Your task to perform on an android device: Open my contact list Image 0: 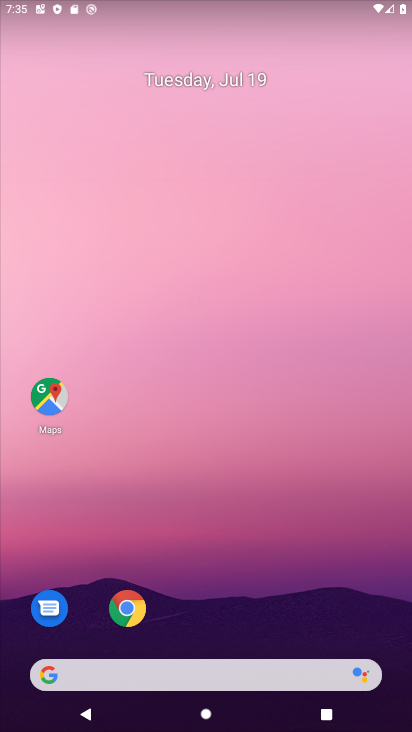
Step 0: drag from (133, 677) to (304, 88)
Your task to perform on an android device: Open my contact list Image 1: 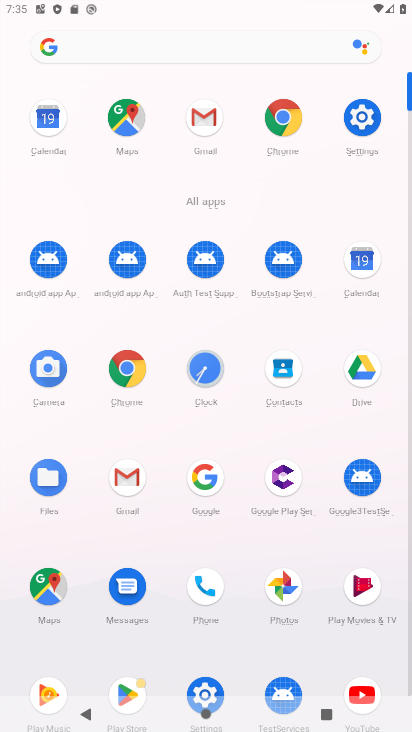
Step 1: click (284, 373)
Your task to perform on an android device: Open my contact list Image 2: 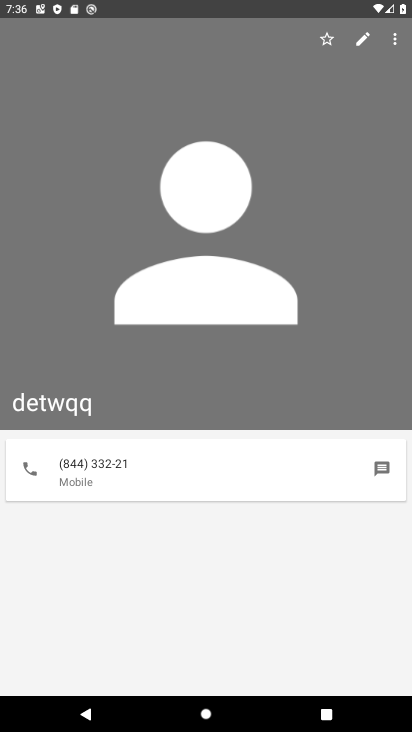
Step 2: task complete